Your task to perform on an android device: open app "Facebook Lite" (install if not already installed) Image 0: 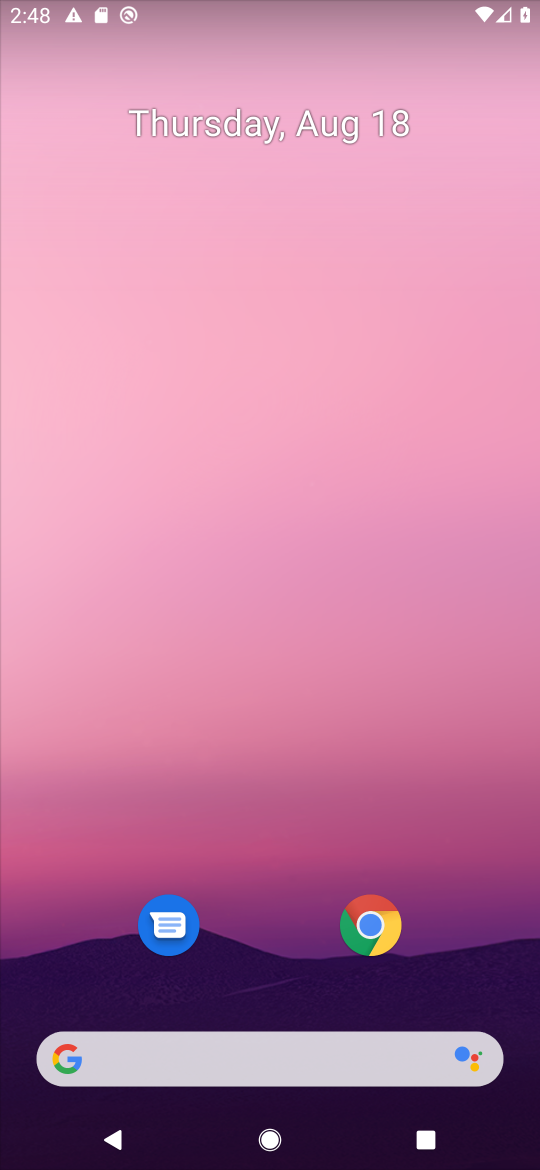
Step 0: drag from (275, 940) to (233, 267)
Your task to perform on an android device: open app "Facebook Lite" (install if not already installed) Image 1: 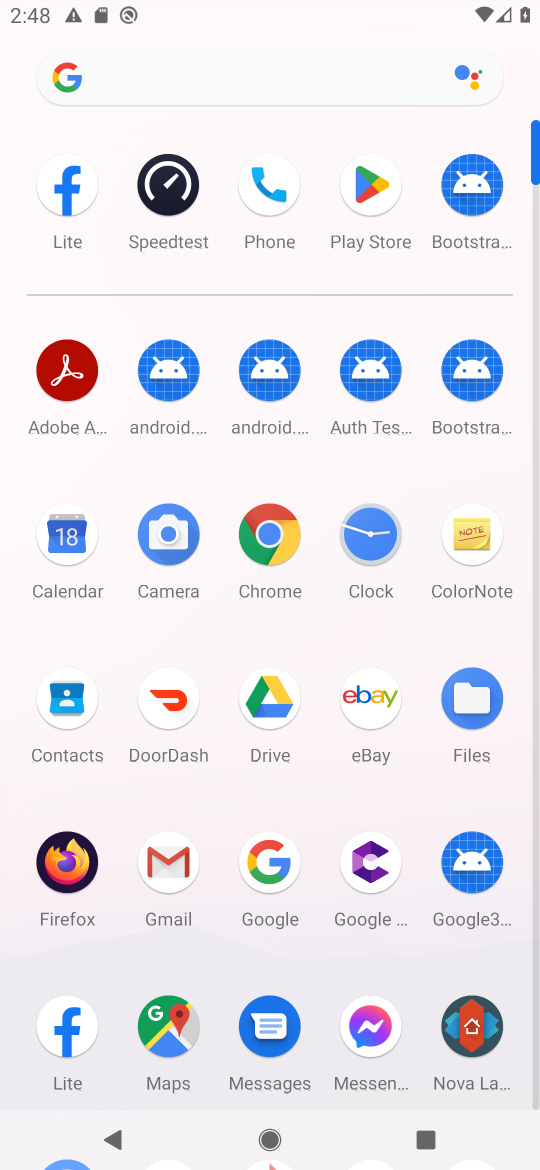
Step 1: click (360, 183)
Your task to perform on an android device: open app "Facebook Lite" (install if not already installed) Image 2: 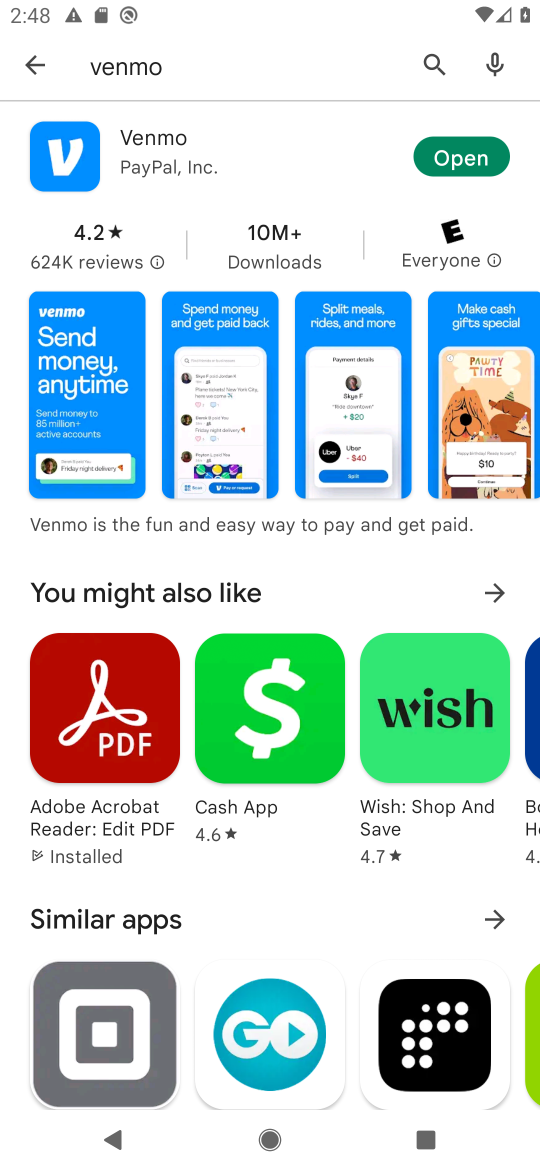
Step 2: click (41, 69)
Your task to perform on an android device: open app "Facebook Lite" (install if not already installed) Image 3: 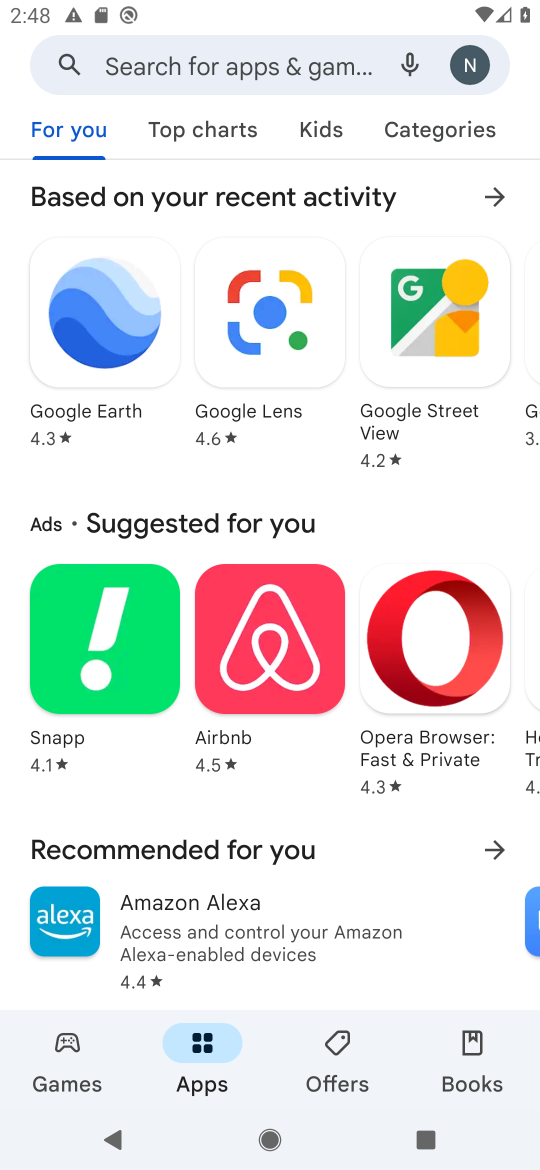
Step 3: click (181, 69)
Your task to perform on an android device: open app "Facebook Lite" (install if not already installed) Image 4: 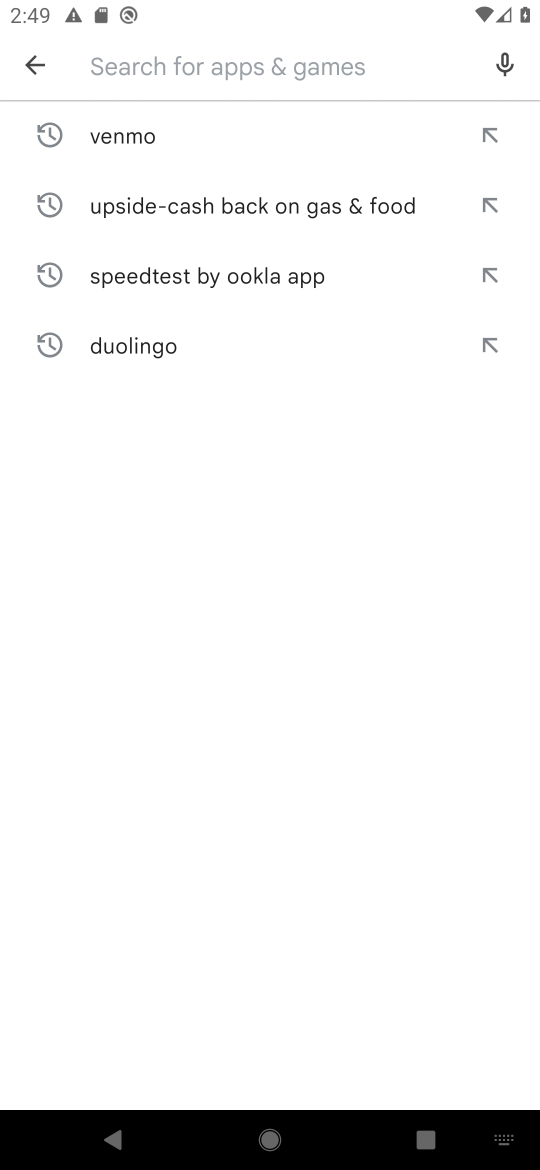
Step 4: type "Facebook Lite"
Your task to perform on an android device: open app "Facebook Lite" (install if not already installed) Image 5: 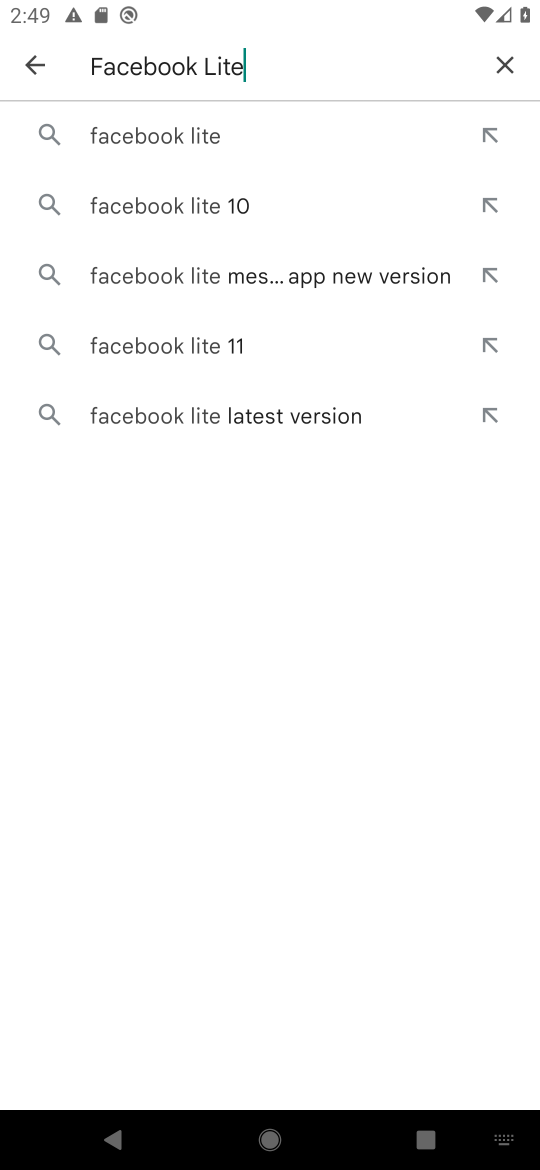
Step 5: click (177, 131)
Your task to perform on an android device: open app "Facebook Lite" (install if not already installed) Image 6: 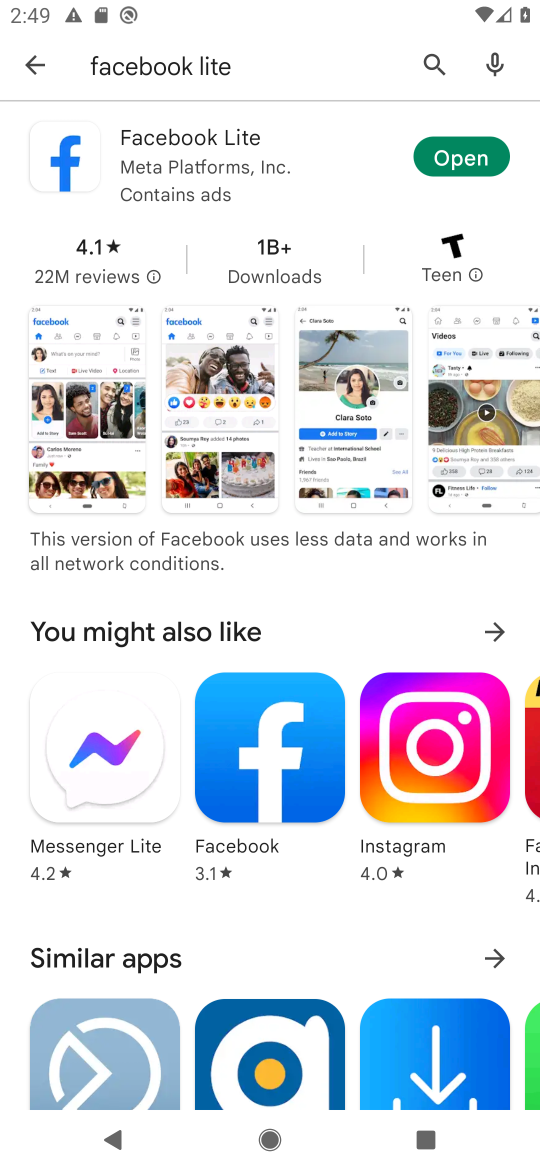
Step 6: click (470, 140)
Your task to perform on an android device: open app "Facebook Lite" (install if not already installed) Image 7: 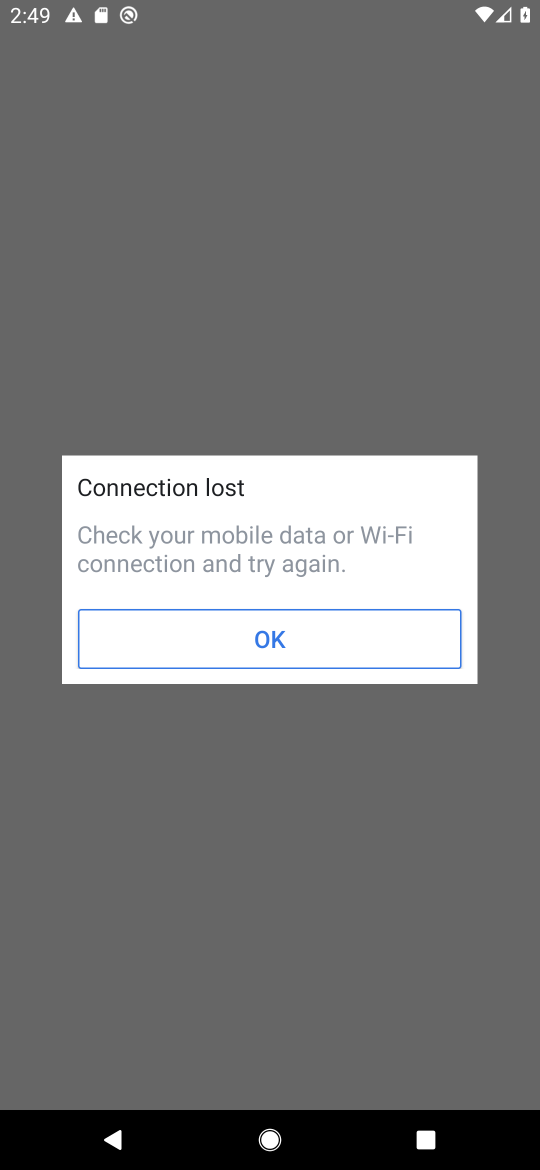
Step 7: task complete